Your task to perform on an android device: add a label to a message in the gmail app Image 0: 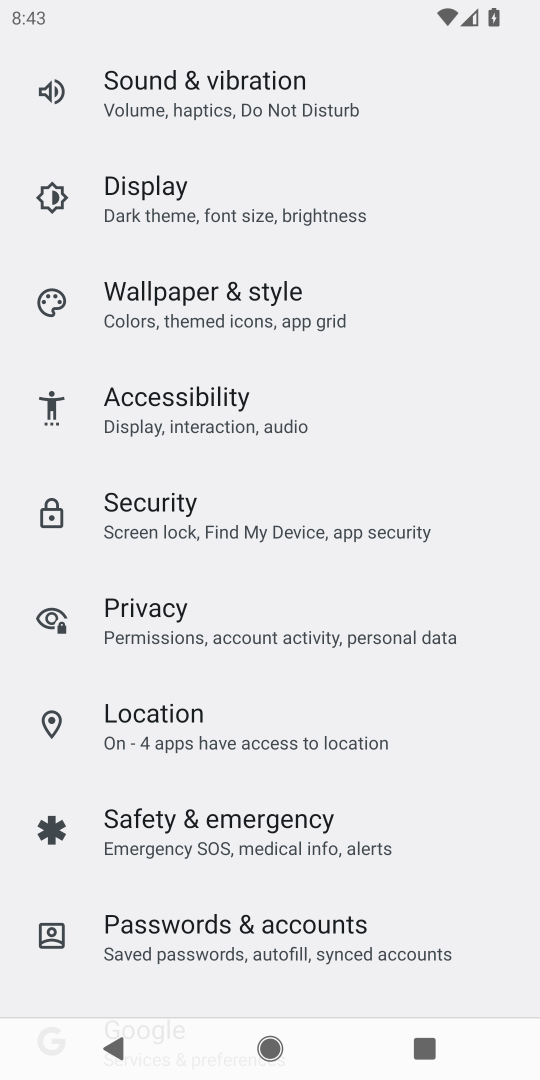
Step 0: press home button
Your task to perform on an android device: add a label to a message in the gmail app Image 1: 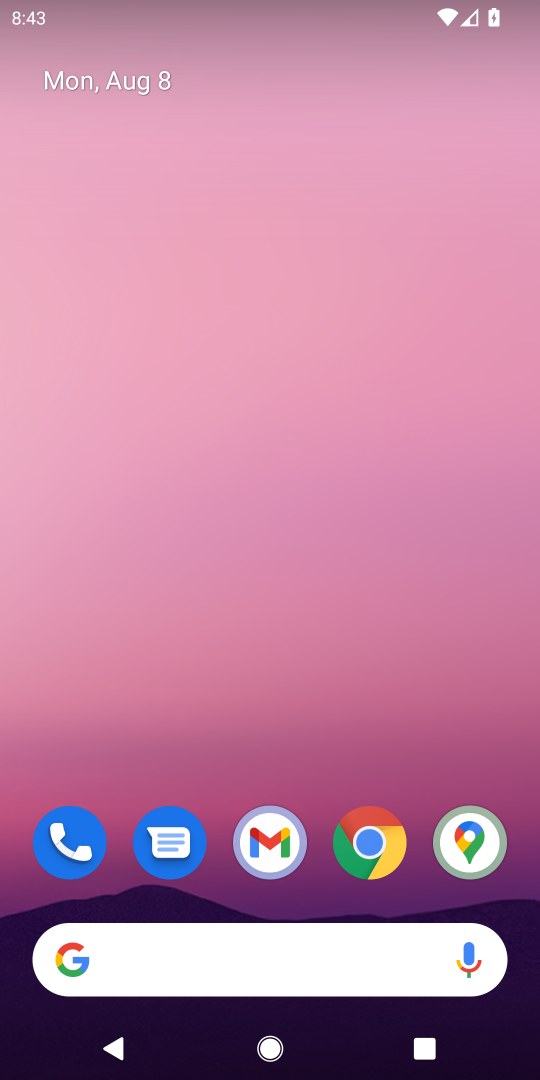
Step 1: click (265, 854)
Your task to perform on an android device: add a label to a message in the gmail app Image 2: 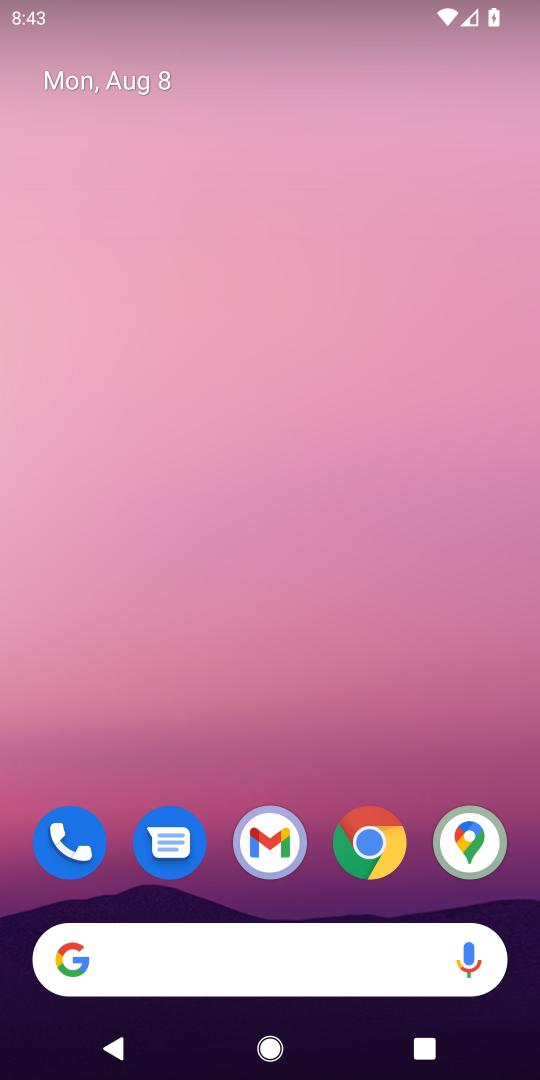
Step 2: click (273, 856)
Your task to perform on an android device: add a label to a message in the gmail app Image 3: 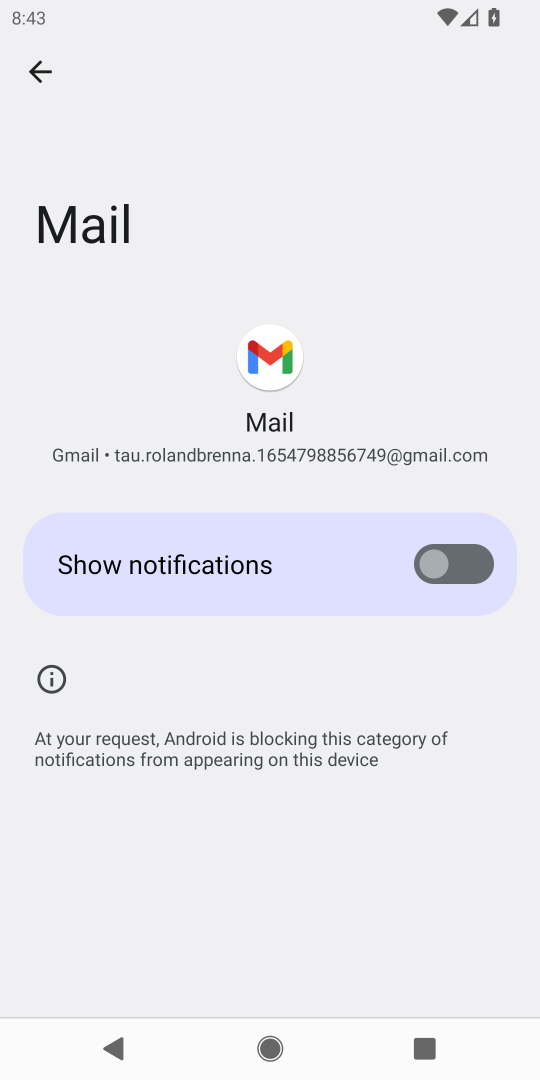
Step 3: click (45, 61)
Your task to perform on an android device: add a label to a message in the gmail app Image 4: 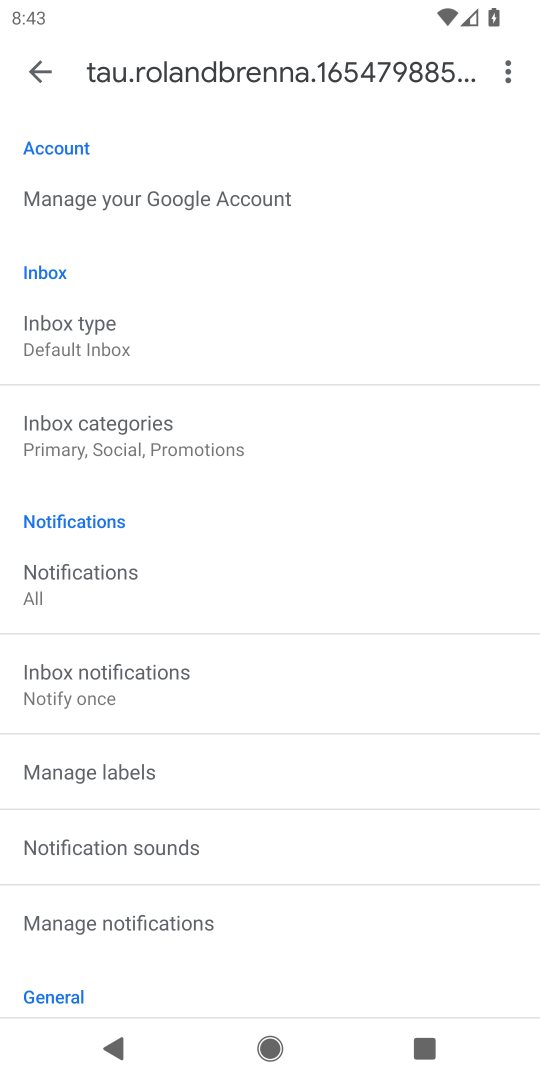
Step 4: click (45, 61)
Your task to perform on an android device: add a label to a message in the gmail app Image 5: 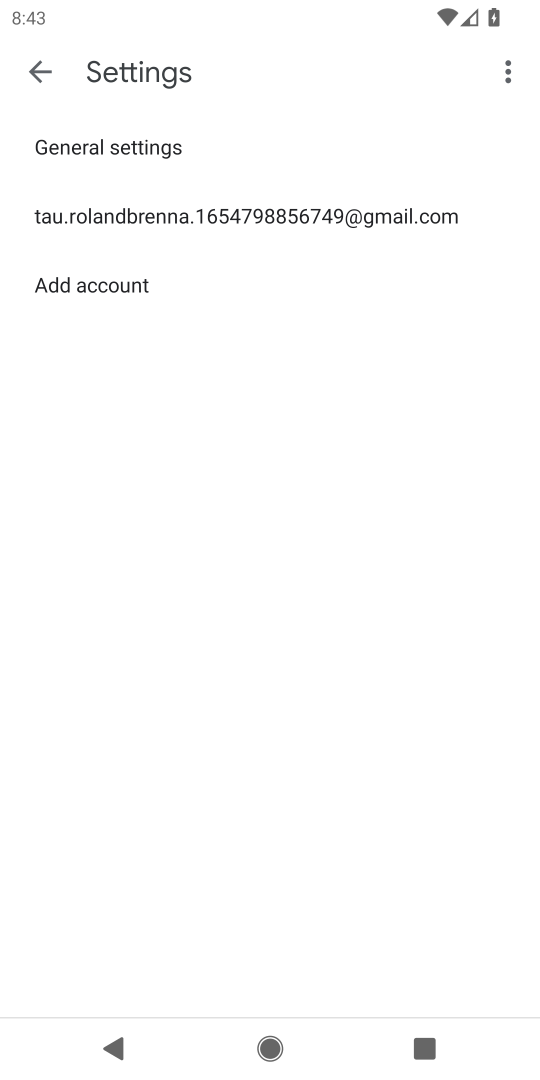
Step 5: click (45, 61)
Your task to perform on an android device: add a label to a message in the gmail app Image 6: 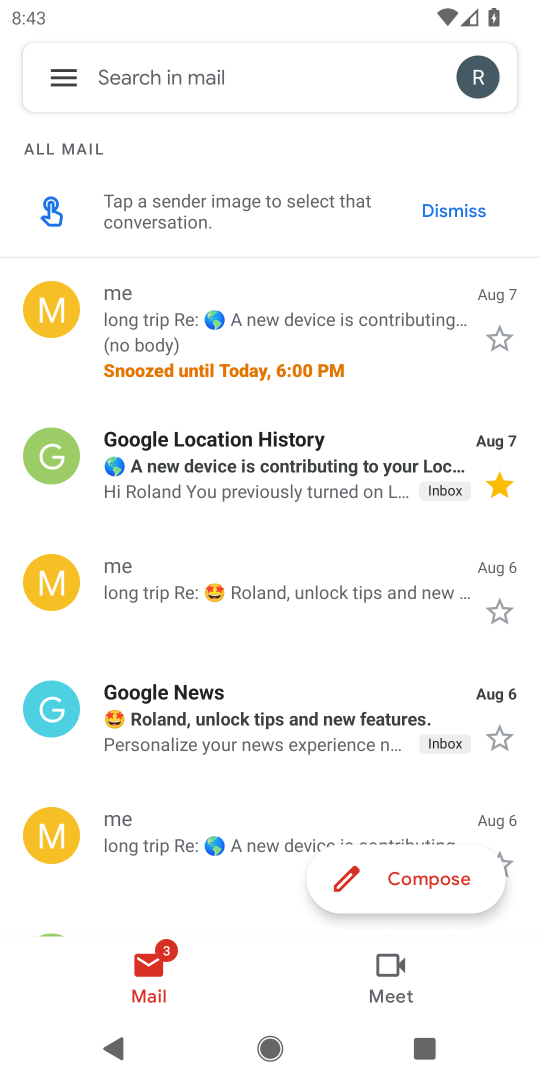
Step 6: click (306, 573)
Your task to perform on an android device: add a label to a message in the gmail app Image 7: 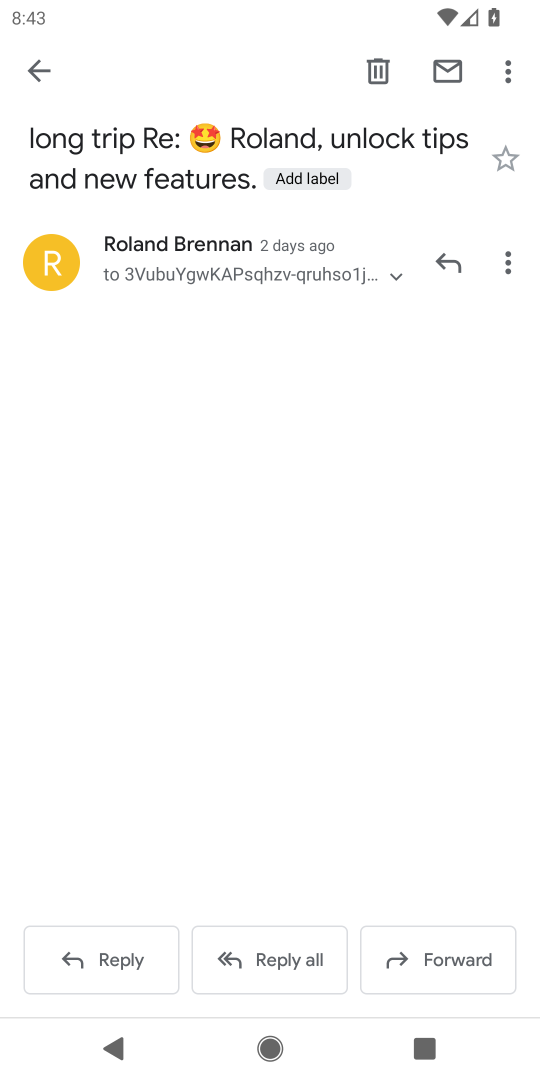
Step 7: click (310, 176)
Your task to perform on an android device: add a label to a message in the gmail app Image 8: 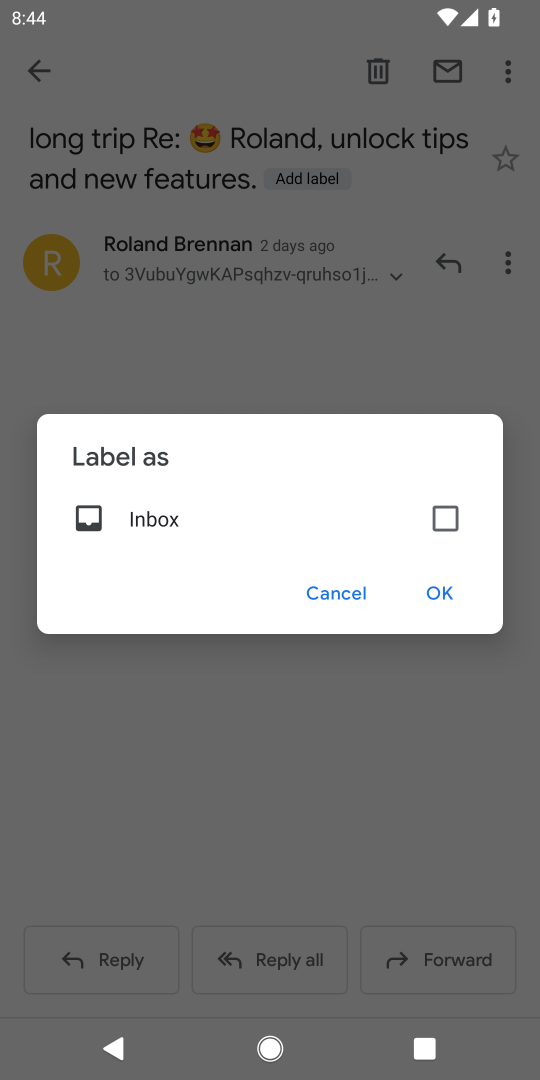
Step 8: click (444, 501)
Your task to perform on an android device: add a label to a message in the gmail app Image 9: 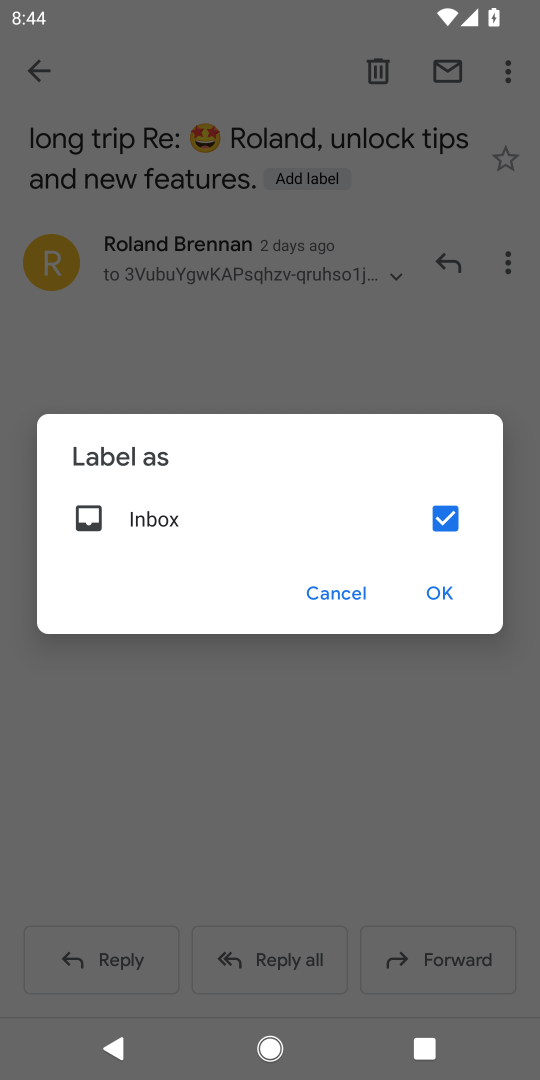
Step 9: click (438, 601)
Your task to perform on an android device: add a label to a message in the gmail app Image 10: 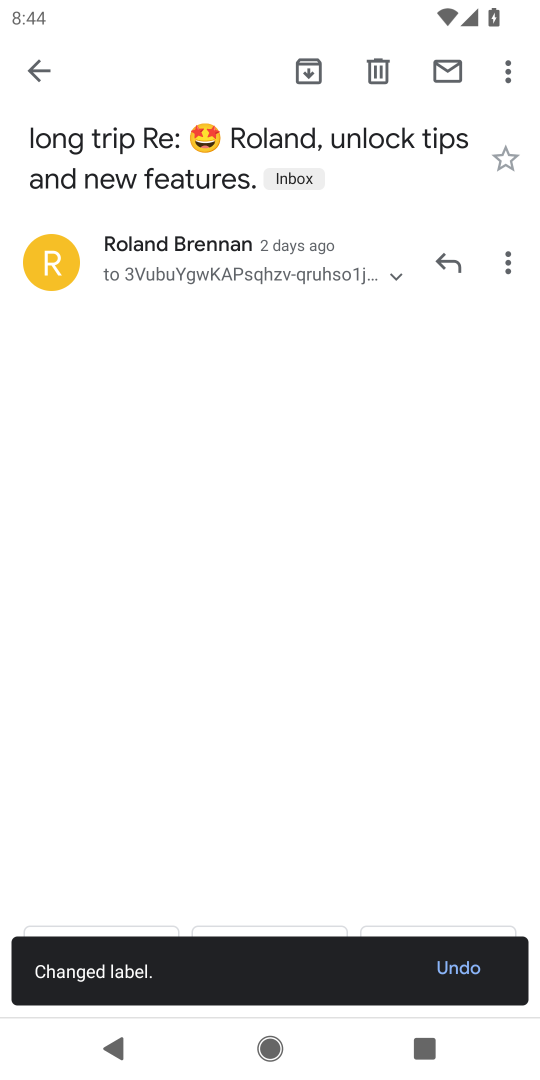
Step 10: task complete